Your task to perform on an android device: Do I have any events this weekend? Image 0: 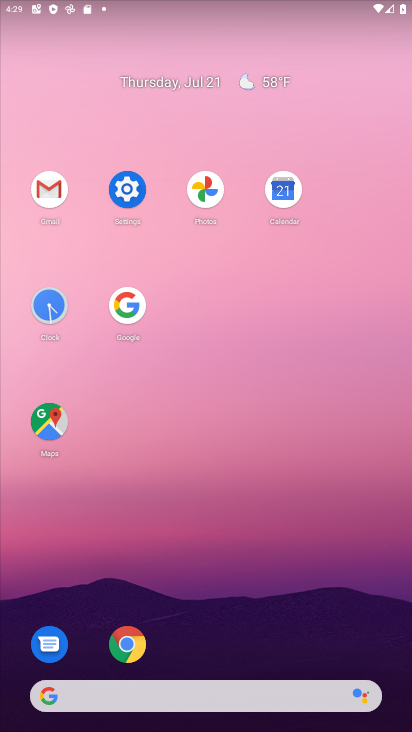
Step 0: click (299, 185)
Your task to perform on an android device: Do I have any events this weekend? Image 1: 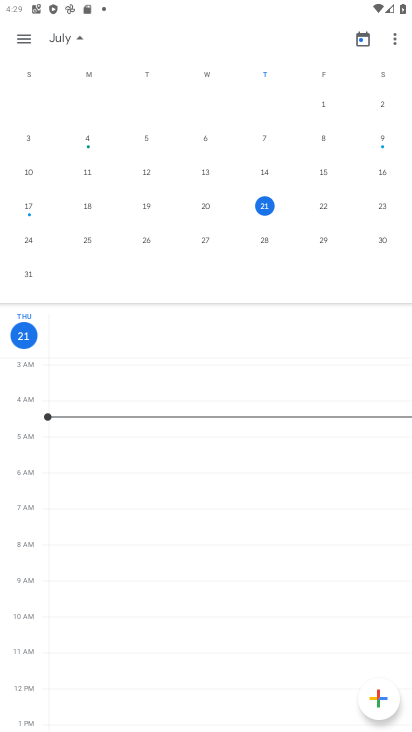
Step 1: click (59, 42)
Your task to perform on an android device: Do I have any events this weekend? Image 2: 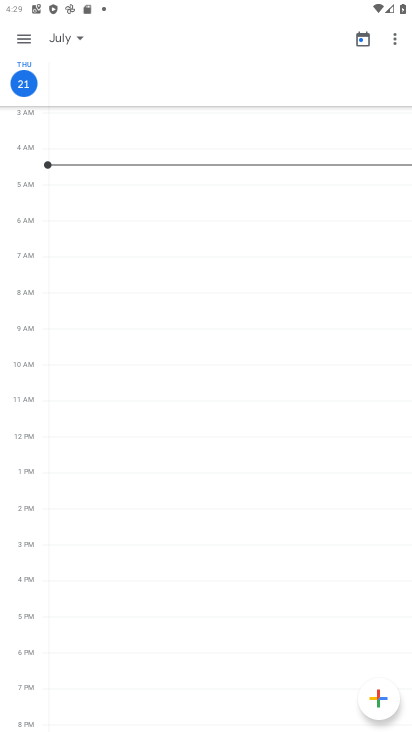
Step 2: click (25, 31)
Your task to perform on an android device: Do I have any events this weekend? Image 3: 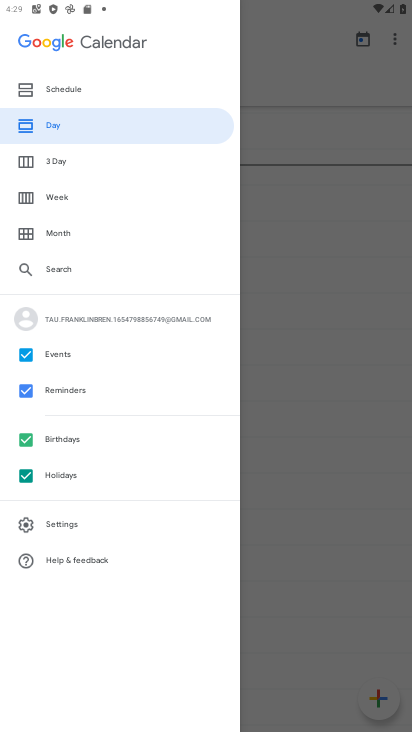
Step 3: click (59, 197)
Your task to perform on an android device: Do I have any events this weekend? Image 4: 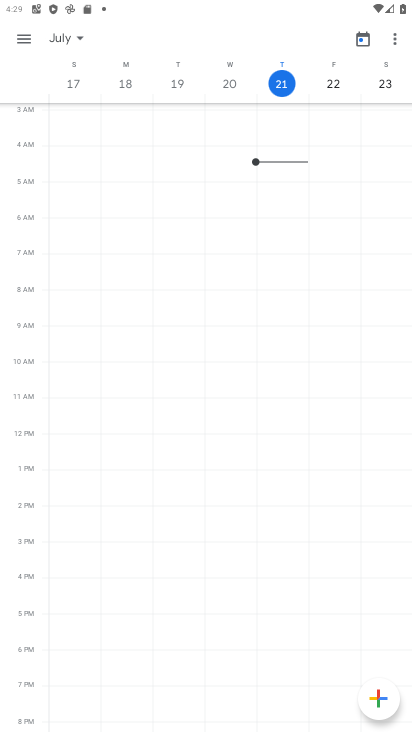
Step 4: task complete